Your task to perform on an android device: add a label to a message in the gmail app Image 0: 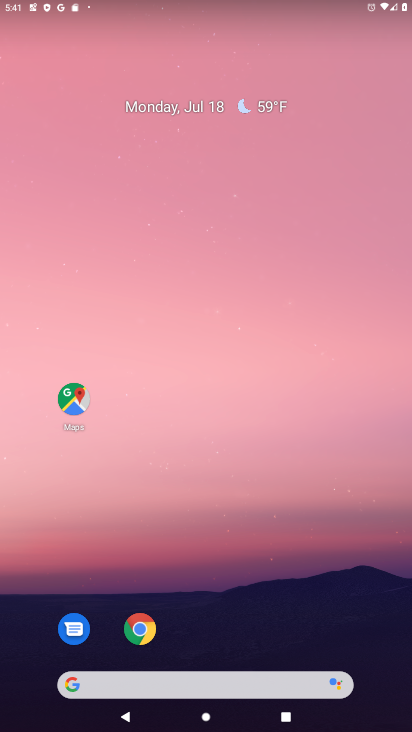
Step 0: drag from (341, 627) to (316, 170)
Your task to perform on an android device: add a label to a message in the gmail app Image 1: 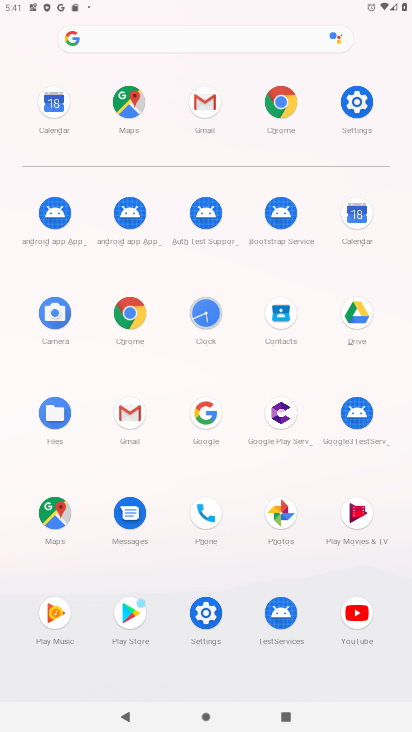
Step 1: click (203, 100)
Your task to perform on an android device: add a label to a message in the gmail app Image 2: 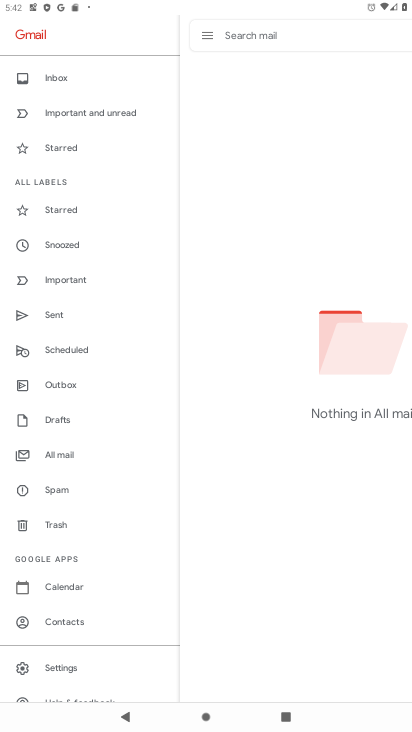
Step 2: task complete